Your task to perform on an android device: Go to Yahoo.com Image 0: 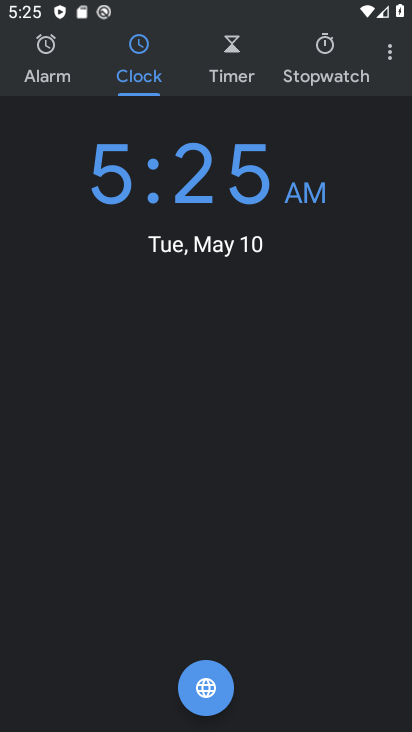
Step 0: press home button
Your task to perform on an android device: Go to Yahoo.com Image 1: 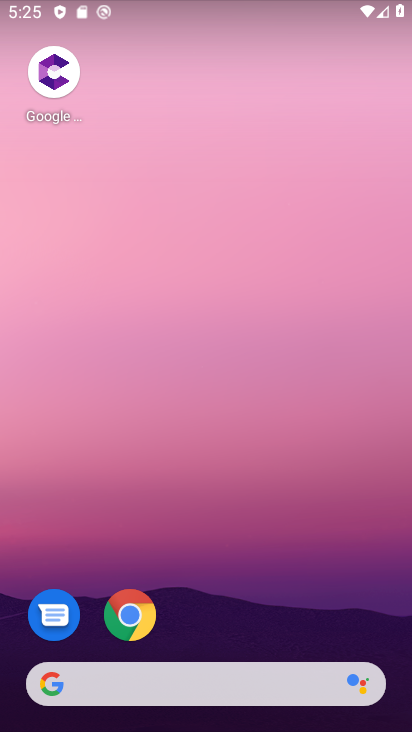
Step 1: drag from (237, 276) to (269, 8)
Your task to perform on an android device: Go to Yahoo.com Image 2: 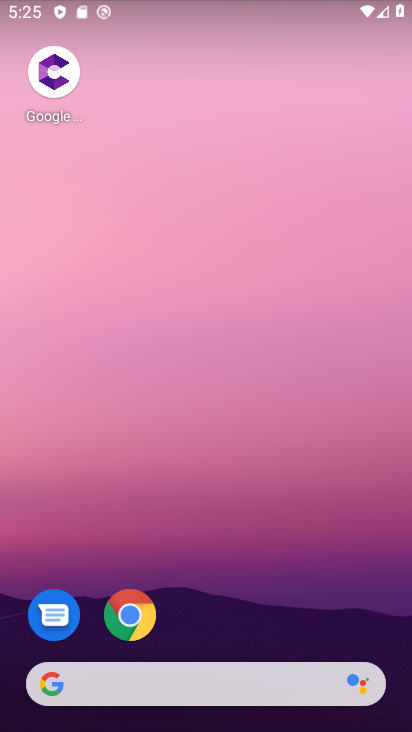
Step 2: click (125, 622)
Your task to perform on an android device: Go to Yahoo.com Image 3: 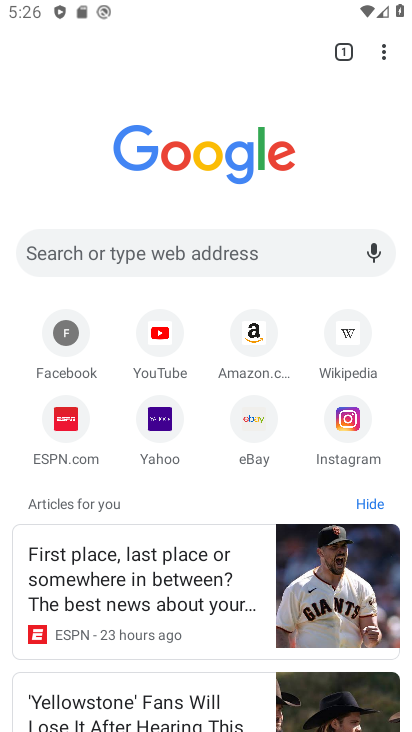
Step 3: click (179, 435)
Your task to perform on an android device: Go to Yahoo.com Image 4: 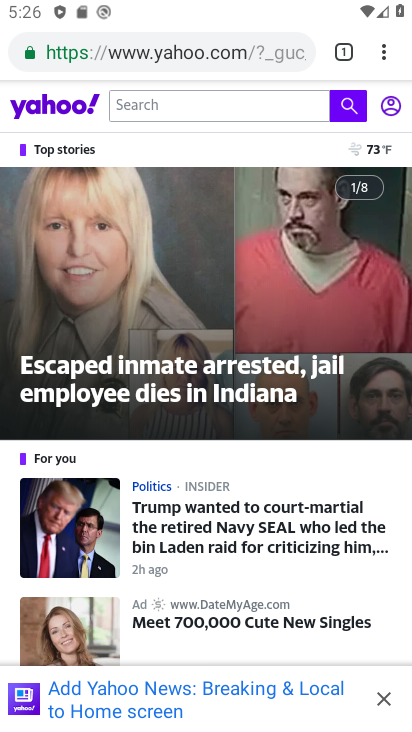
Step 4: task complete